Your task to perform on an android device: Open calendar and show me the fourth week of next month Image 0: 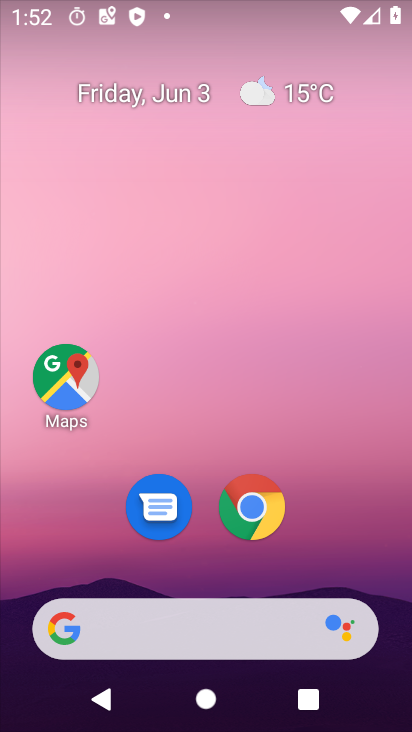
Step 0: drag from (383, 645) to (277, 12)
Your task to perform on an android device: Open calendar and show me the fourth week of next month Image 1: 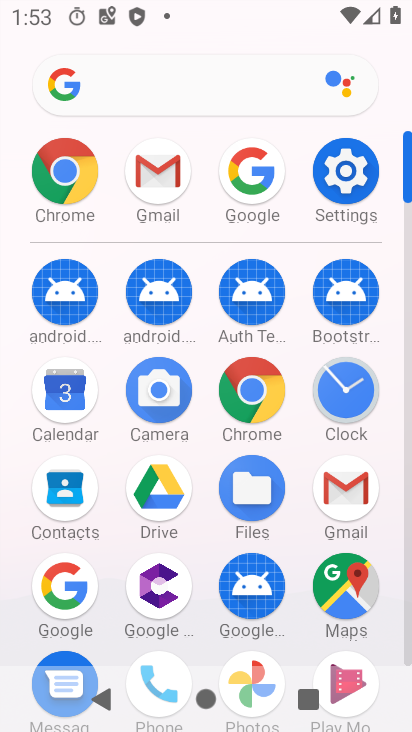
Step 1: click (54, 391)
Your task to perform on an android device: Open calendar and show me the fourth week of next month Image 2: 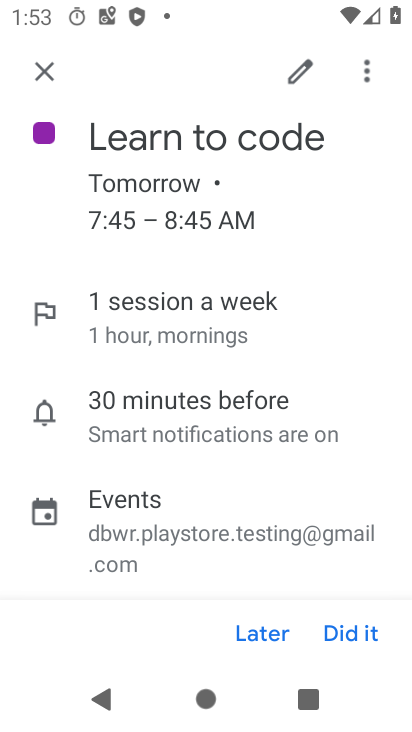
Step 2: click (49, 67)
Your task to perform on an android device: Open calendar and show me the fourth week of next month Image 3: 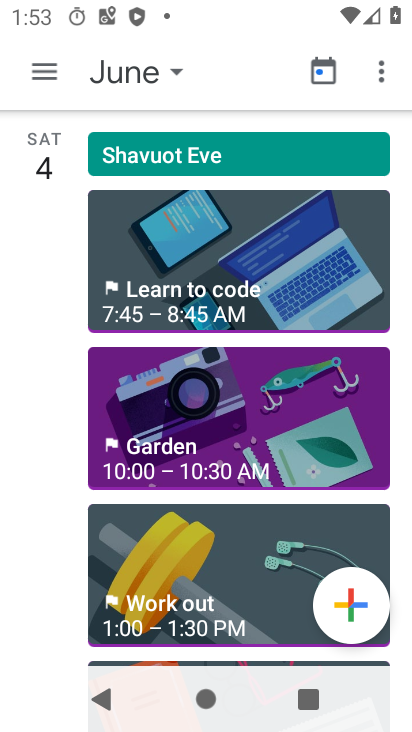
Step 3: click (147, 65)
Your task to perform on an android device: Open calendar and show me the fourth week of next month Image 4: 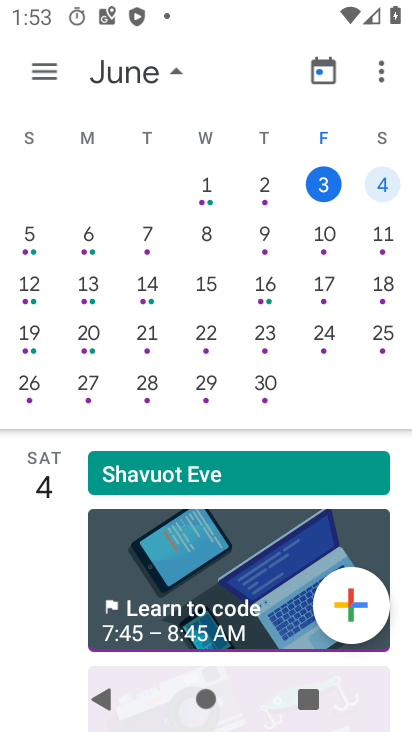
Step 4: drag from (369, 266) to (15, 237)
Your task to perform on an android device: Open calendar and show me the fourth week of next month Image 5: 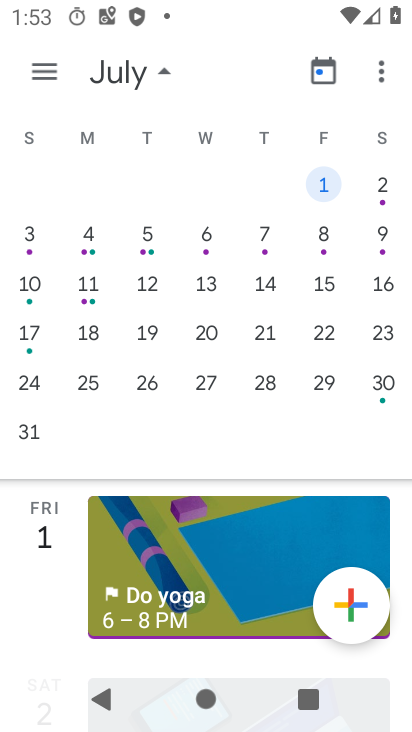
Step 5: click (375, 388)
Your task to perform on an android device: Open calendar and show me the fourth week of next month Image 6: 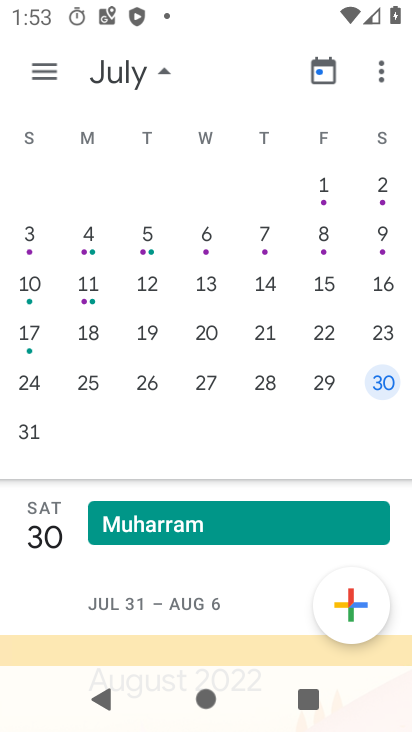
Step 6: task complete